Your task to perform on an android device: set the timer Image 0: 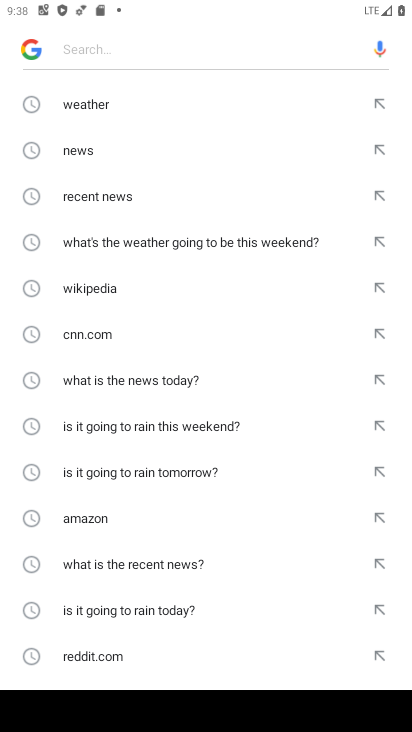
Step 0: press home button
Your task to perform on an android device: set the timer Image 1: 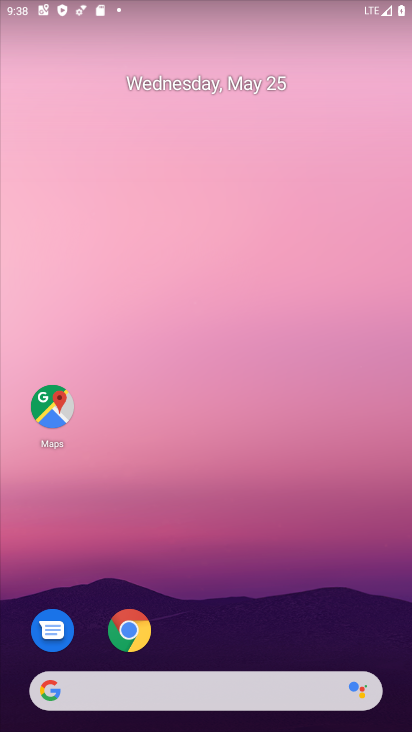
Step 1: drag from (284, 617) to (323, 70)
Your task to perform on an android device: set the timer Image 2: 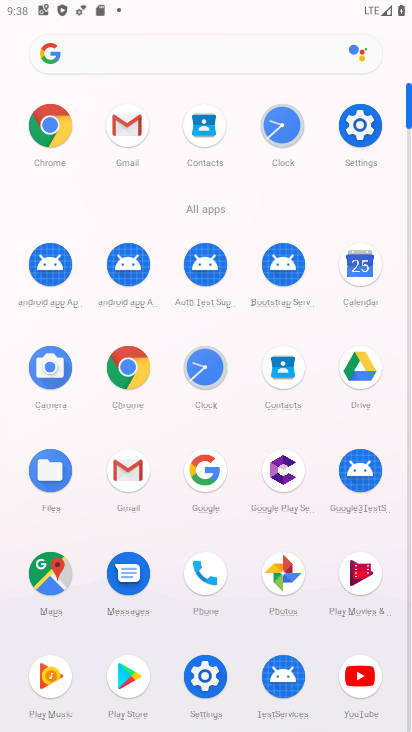
Step 2: click (207, 370)
Your task to perform on an android device: set the timer Image 3: 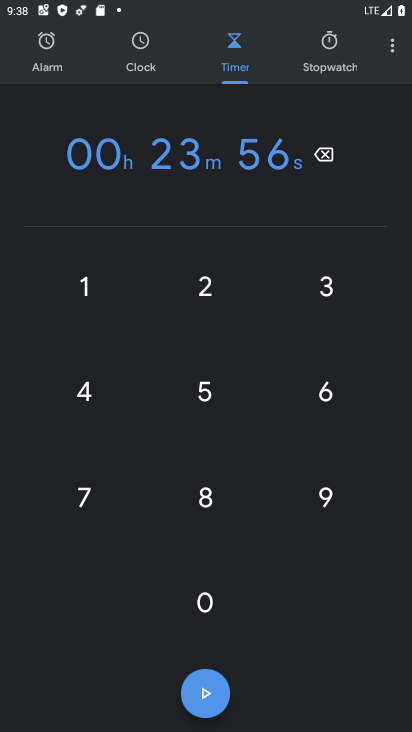
Step 3: click (206, 282)
Your task to perform on an android device: set the timer Image 4: 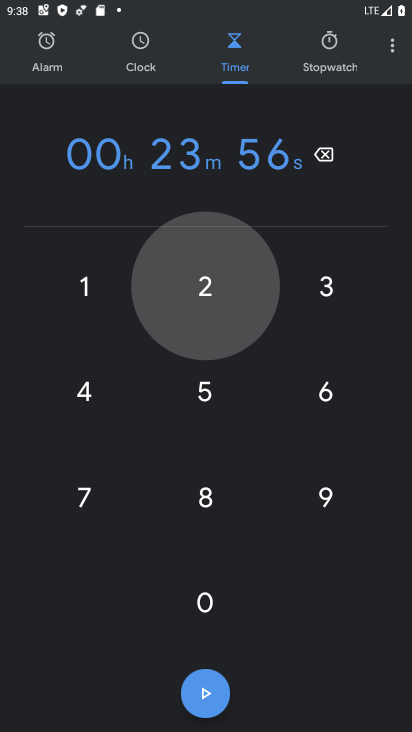
Step 4: click (329, 283)
Your task to perform on an android device: set the timer Image 5: 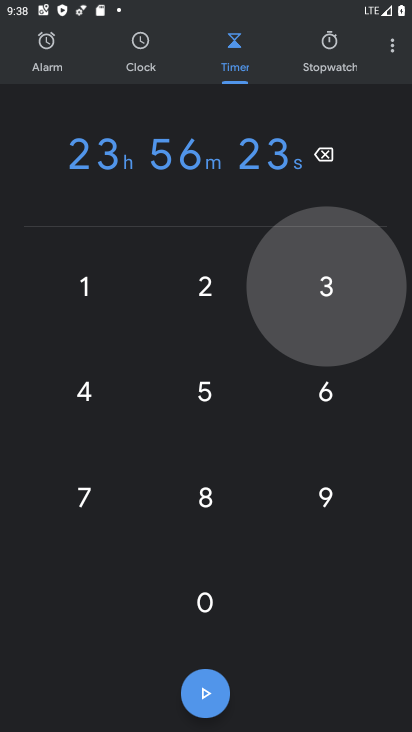
Step 5: click (171, 384)
Your task to perform on an android device: set the timer Image 6: 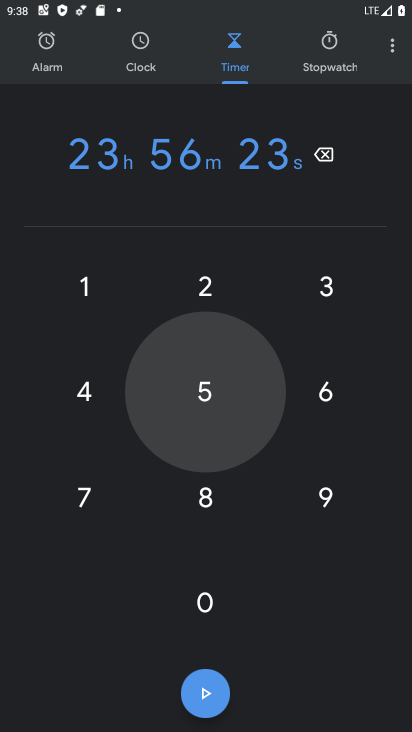
Step 6: click (304, 387)
Your task to perform on an android device: set the timer Image 7: 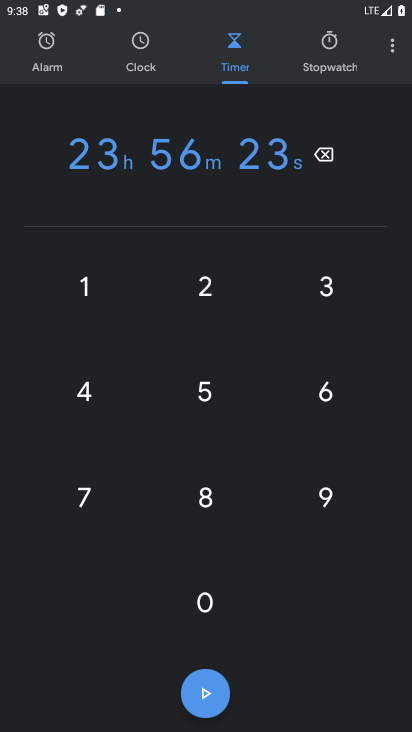
Step 7: task complete